Your task to perform on an android device: open chrome privacy settings Image 0: 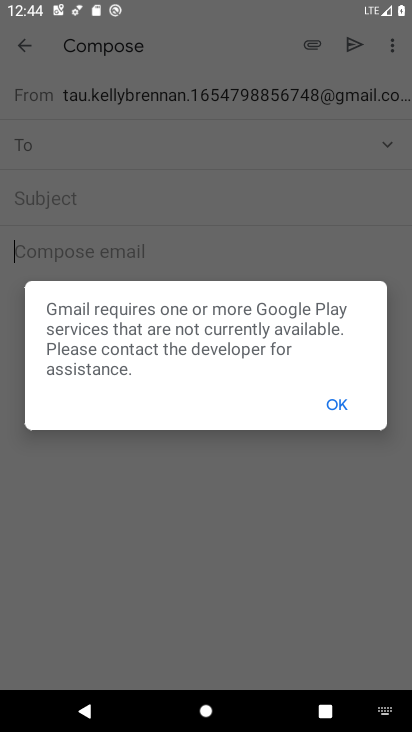
Step 0: click (330, 395)
Your task to perform on an android device: open chrome privacy settings Image 1: 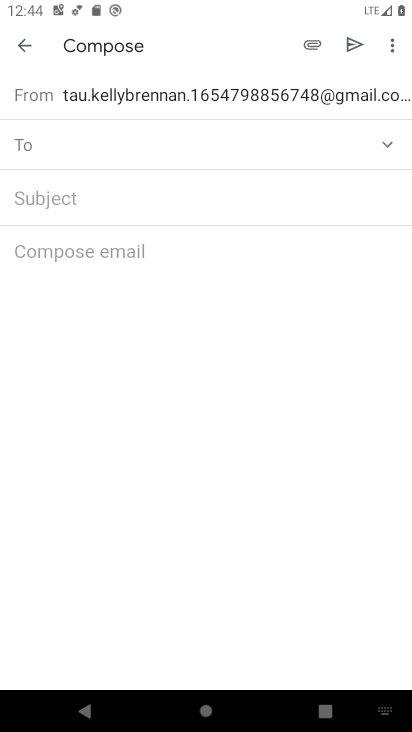
Step 1: press home button
Your task to perform on an android device: open chrome privacy settings Image 2: 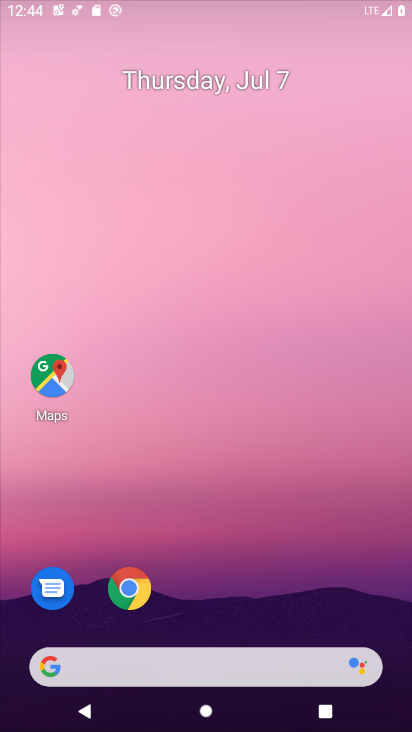
Step 2: drag from (209, 600) to (289, 86)
Your task to perform on an android device: open chrome privacy settings Image 3: 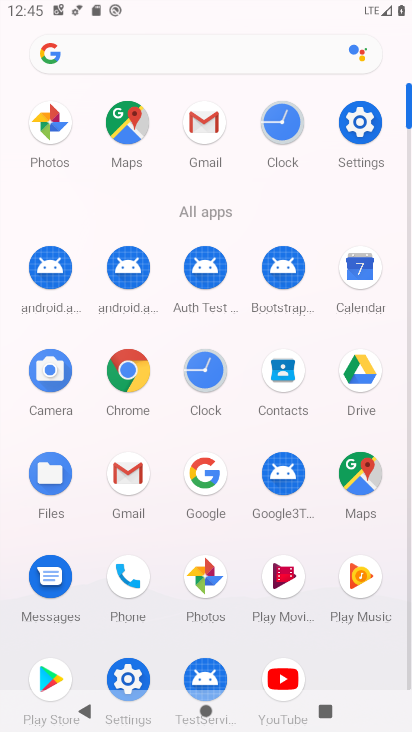
Step 3: click (119, 360)
Your task to perform on an android device: open chrome privacy settings Image 4: 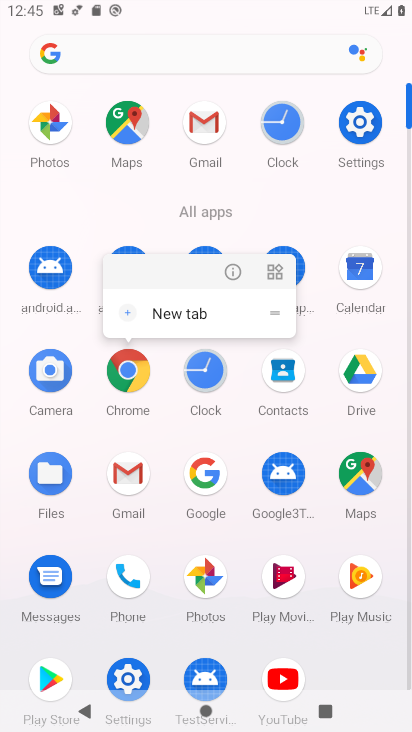
Step 4: click (239, 275)
Your task to perform on an android device: open chrome privacy settings Image 5: 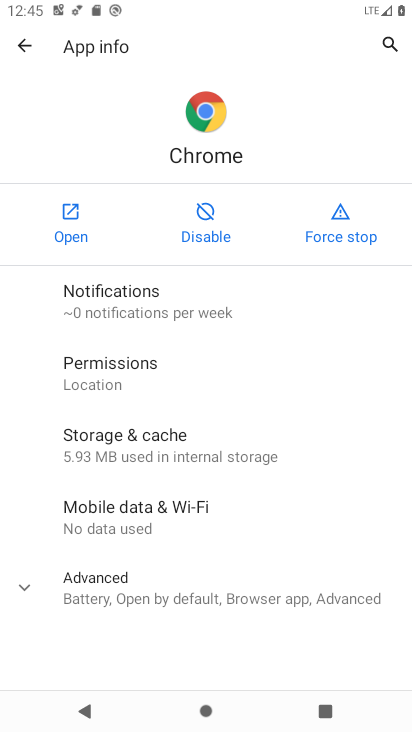
Step 5: click (68, 218)
Your task to perform on an android device: open chrome privacy settings Image 6: 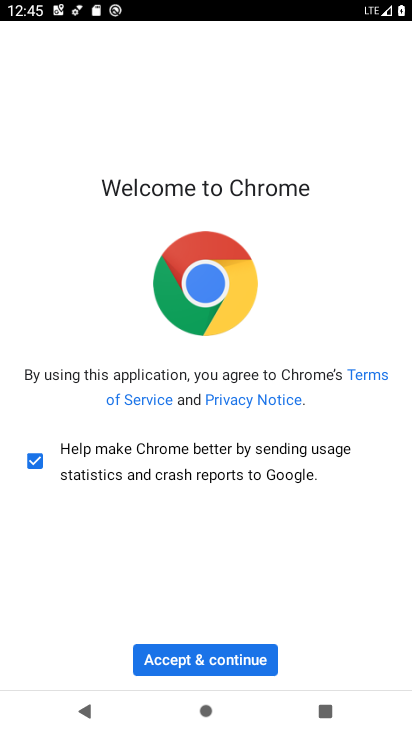
Step 6: click (191, 655)
Your task to perform on an android device: open chrome privacy settings Image 7: 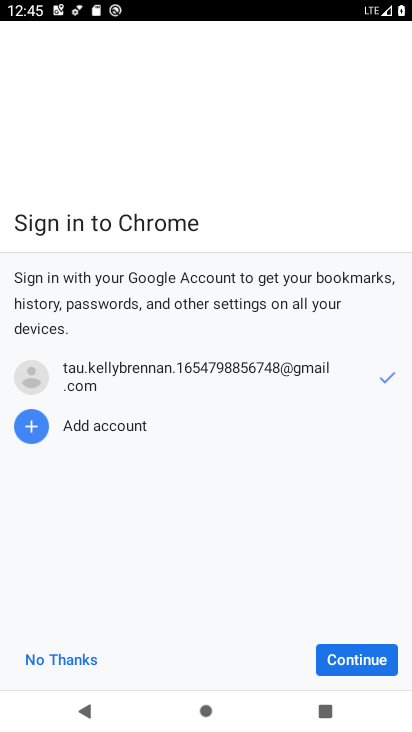
Step 7: click (359, 655)
Your task to perform on an android device: open chrome privacy settings Image 8: 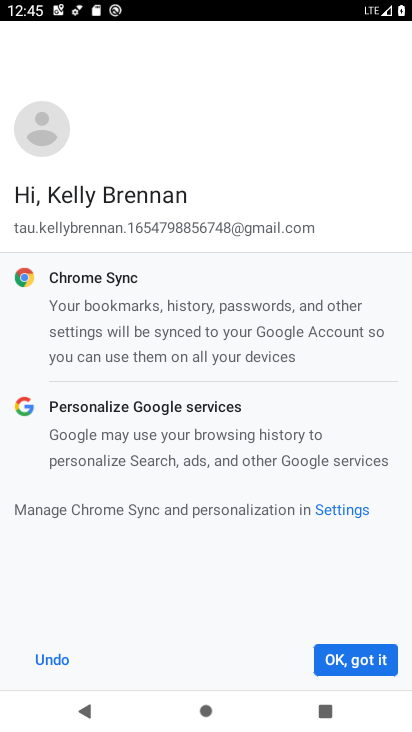
Step 8: click (340, 659)
Your task to perform on an android device: open chrome privacy settings Image 9: 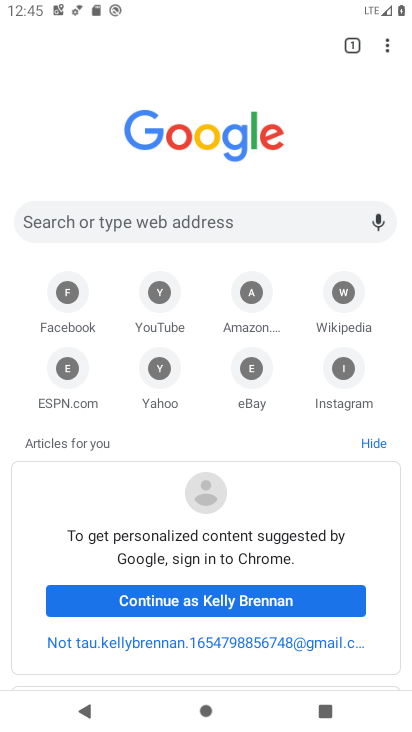
Step 9: click (390, 43)
Your task to perform on an android device: open chrome privacy settings Image 10: 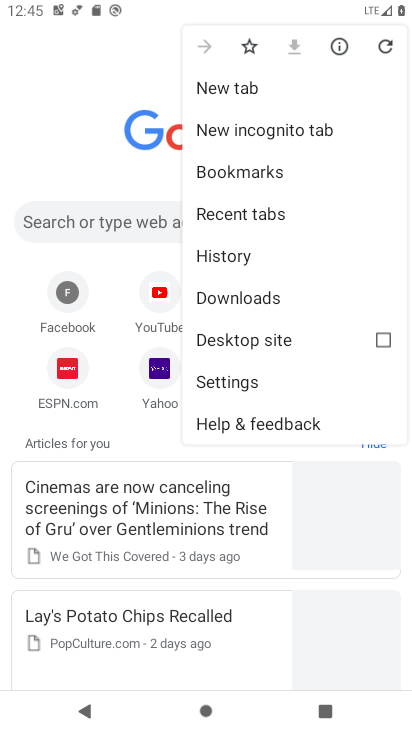
Step 10: click (250, 380)
Your task to perform on an android device: open chrome privacy settings Image 11: 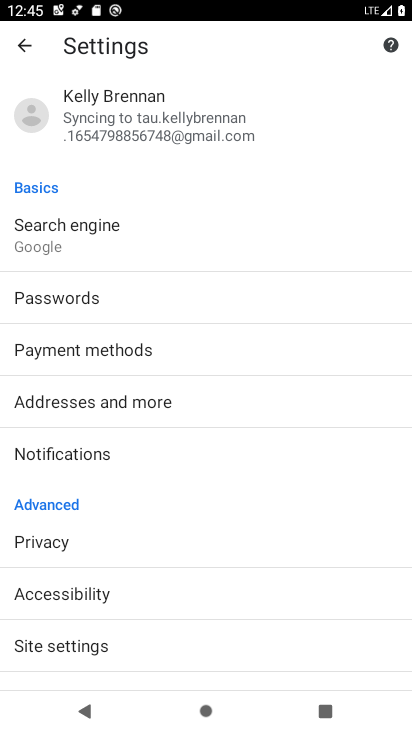
Step 11: drag from (130, 536) to (207, 265)
Your task to perform on an android device: open chrome privacy settings Image 12: 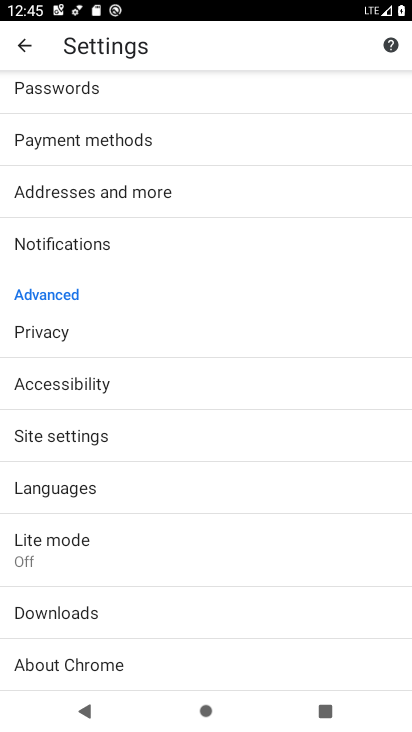
Step 12: click (119, 328)
Your task to perform on an android device: open chrome privacy settings Image 13: 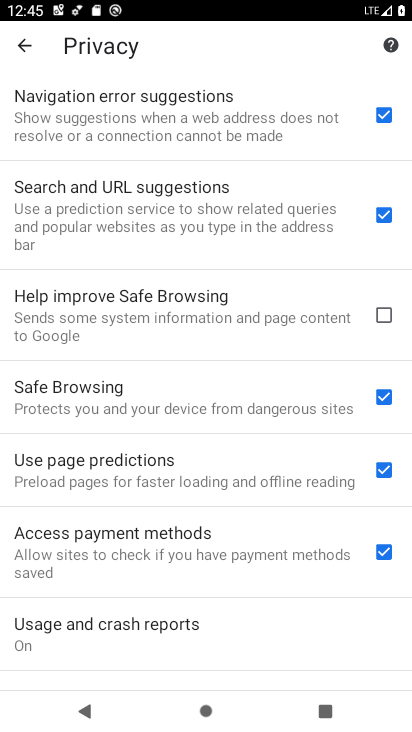
Step 13: task complete